Your task to perform on an android device: delete a single message in the gmail app Image 0: 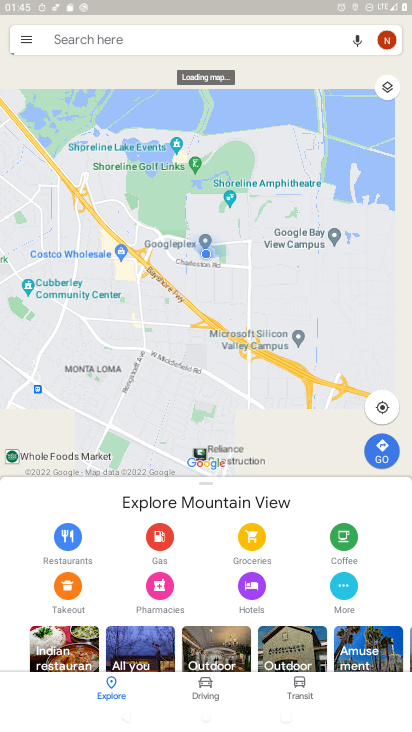
Step 0: press home button
Your task to perform on an android device: delete a single message in the gmail app Image 1: 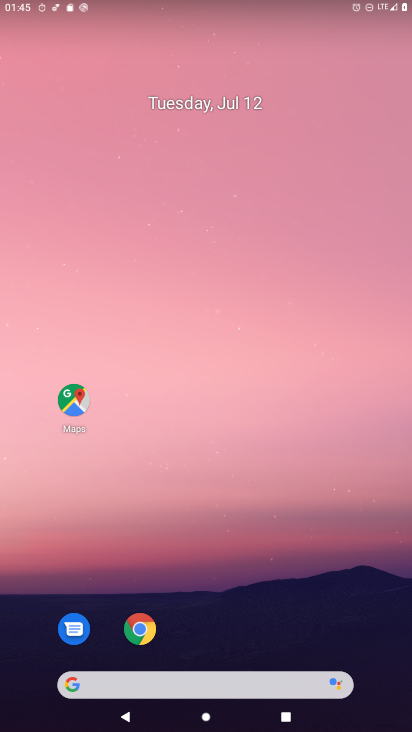
Step 1: drag from (26, 702) to (248, 141)
Your task to perform on an android device: delete a single message in the gmail app Image 2: 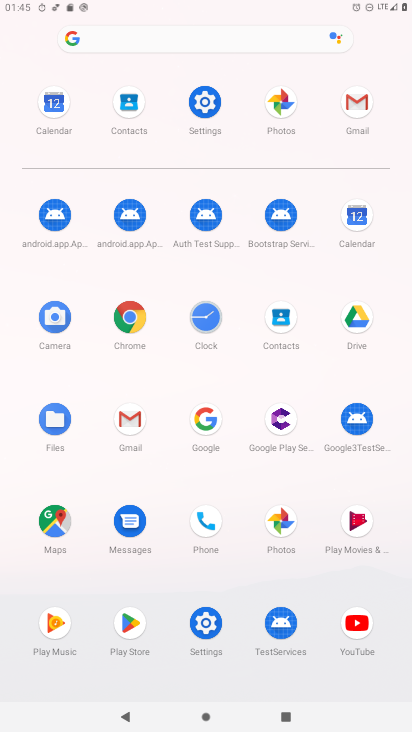
Step 2: click (112, 432)
Your task to perform on an android device: delete a single message in the gmail app Image 3: 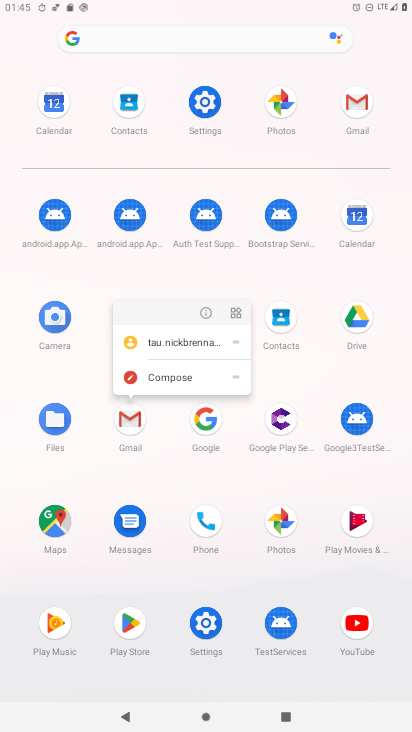
Step 3: click (121, 427)
Your task to perform on an android device: delete a single message in the gmail app Image 4: 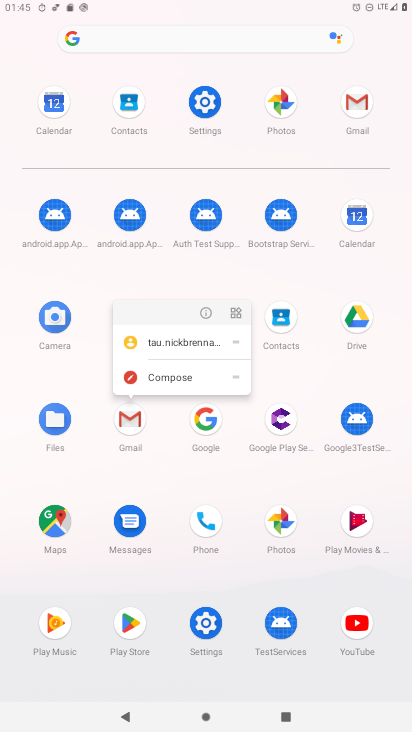
Step 4: click (132, 444)
Your task to perform on an android device: delete a single message in the gmail app Image 5: 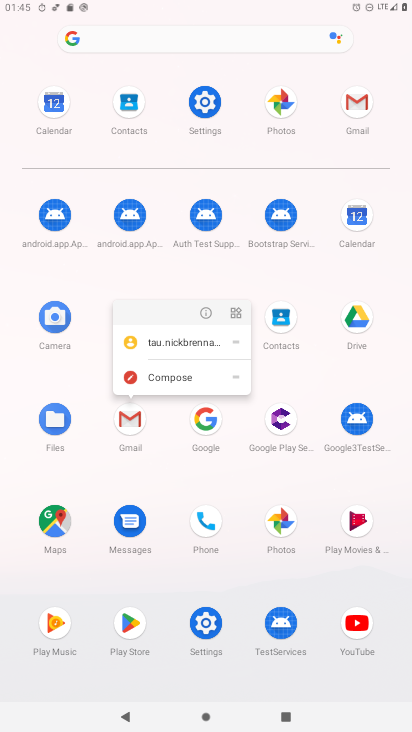
Step 5: task complete